Your task to perform on an android device: Open the Play Movies app and select the watchlist tab. Image 0: 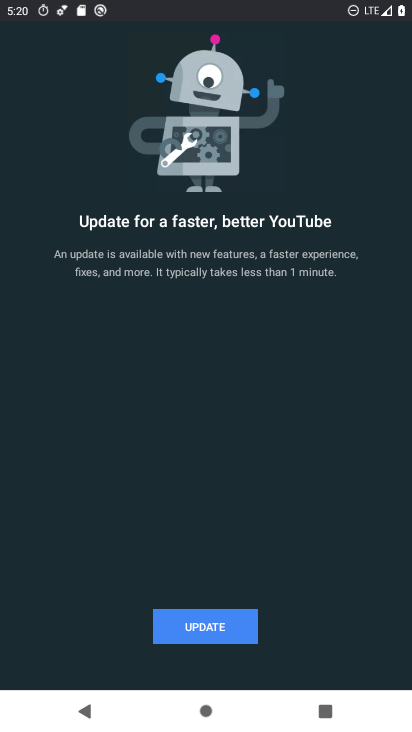
Step 0: press home button
Your task to perform on an android device: Open the Play Movies app and select the watchlist tab. Image 1: 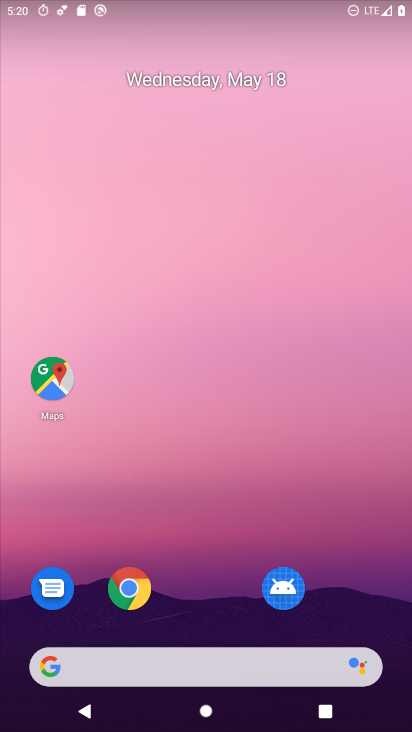
Step 1: drag from (265, 567) to (271, 139)
Your task to perform on an android device: Open the Play Movies app and select the watchlist tab. Image 2: 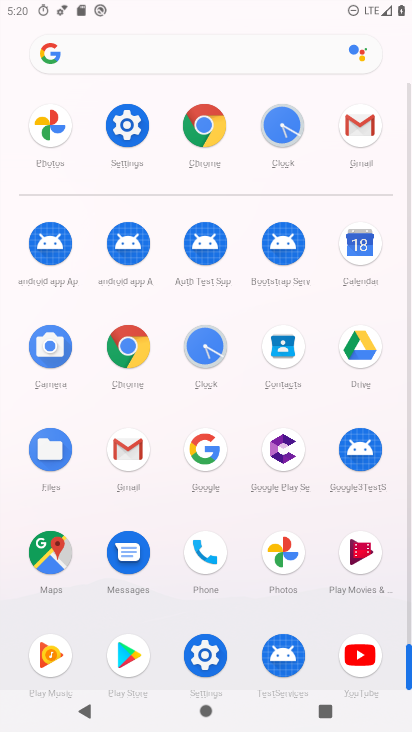
Step 2: click (362, 553)
Your task to perform on an android device: Open the Play Movies app and select the watchlist tab. Image 3: 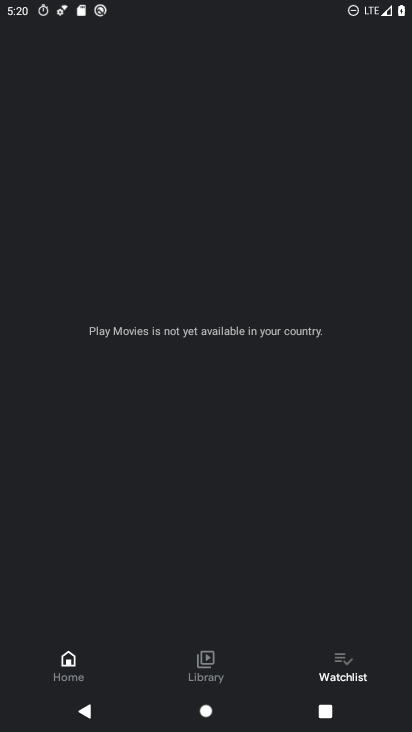
Step 3: click (338, 669)
Your task to perform on an android device: Open the Play Movies app and select the watchlist tab. Image 4: 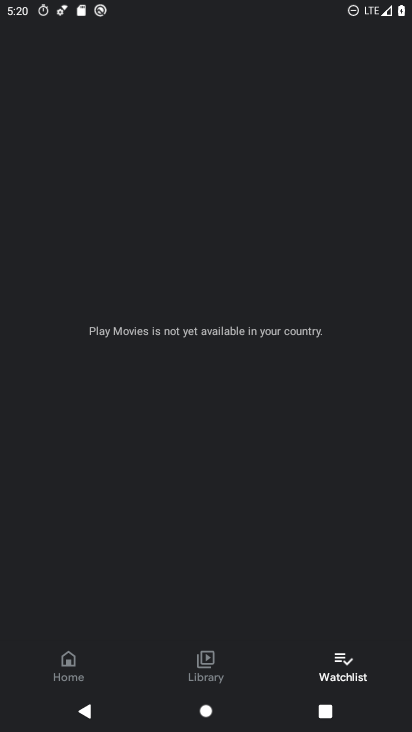
Step 4: task complete